Your task to perform on an android device: add a contact Image 0: 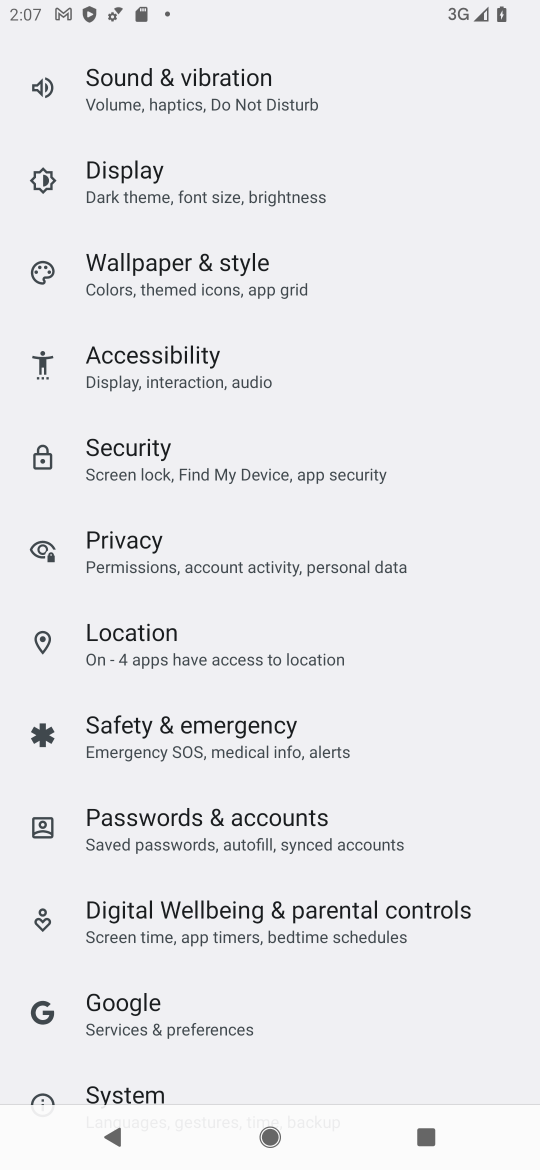
Step 0: press home button
Your task to perform on an android device: add a contact Image 1: 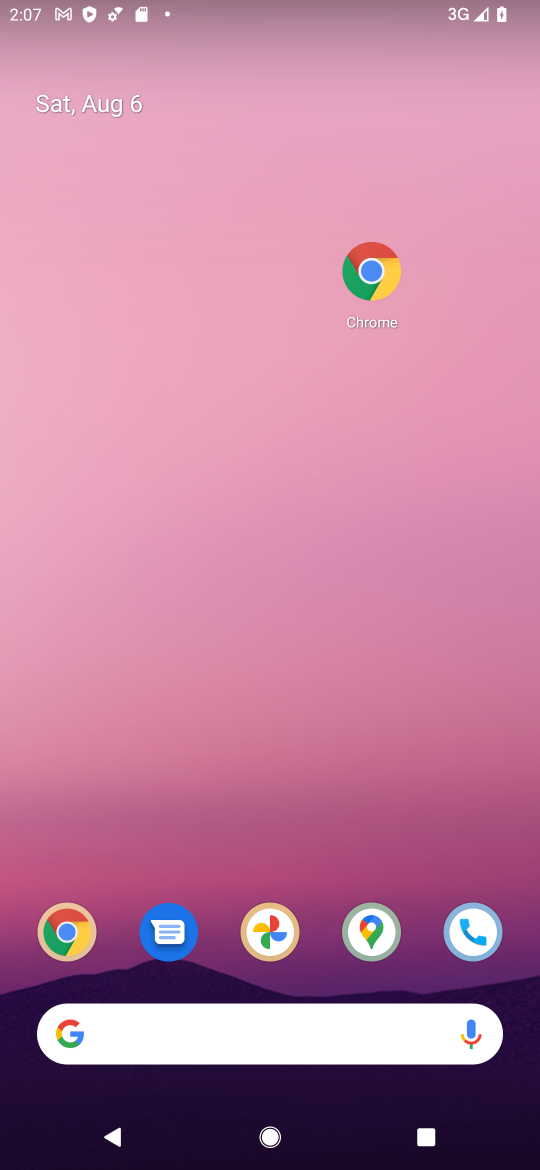
Step 1: click (476, 914)
Your task to perform on an android device: add a contact Image 2: 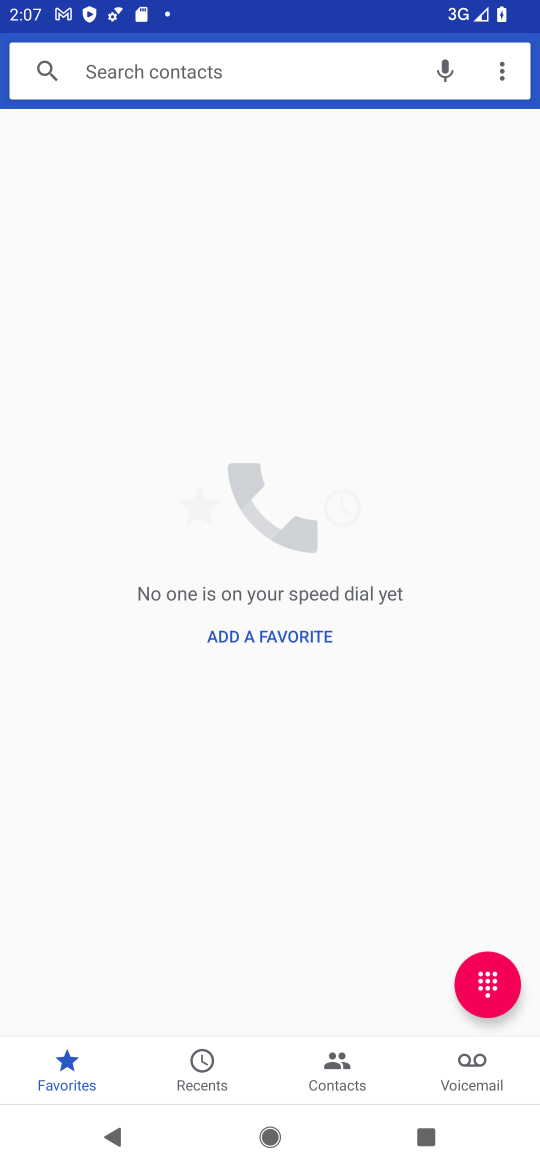
Step 2: click (472, 979)
Your task to perform on an android device: add a contact Image 3: 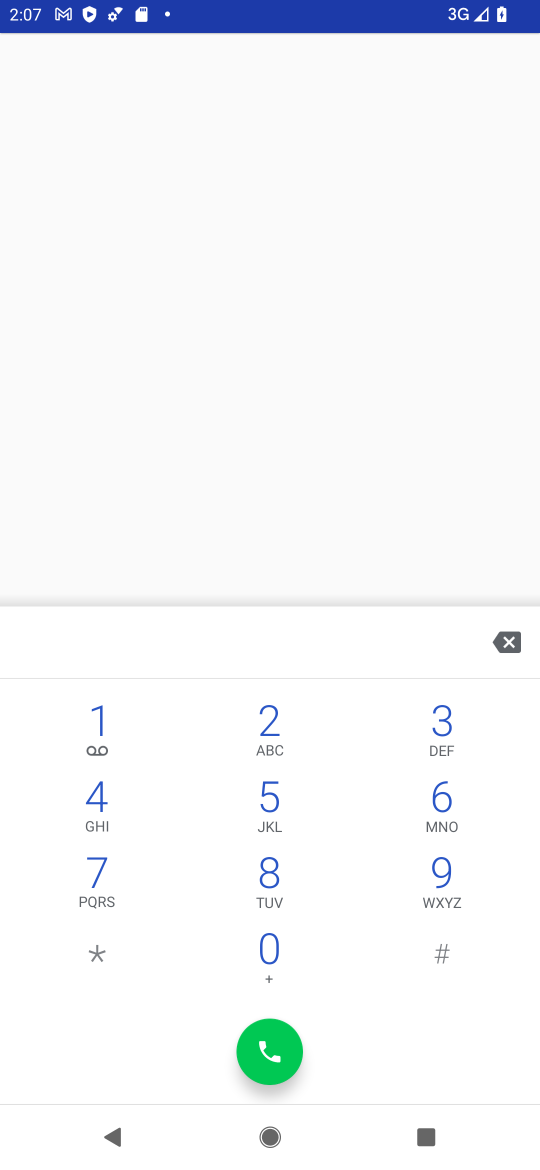
Step 3: click (273, 871)
Your task to perform on an android device: add a contact Image 4: 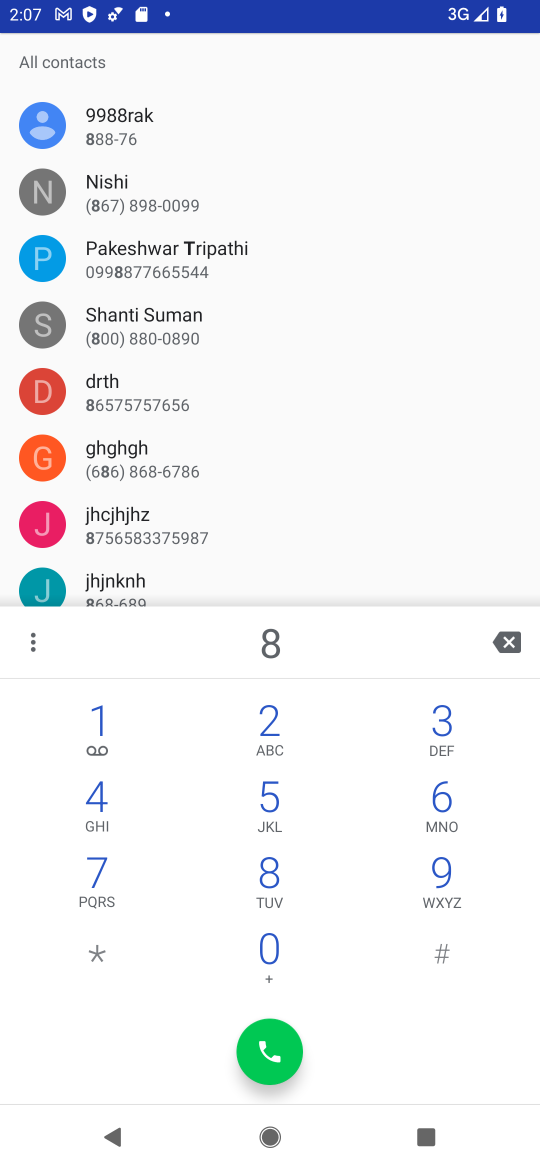
Step 4: click (174, 47)
Your task to perform on an android device: add a contact Image 5: 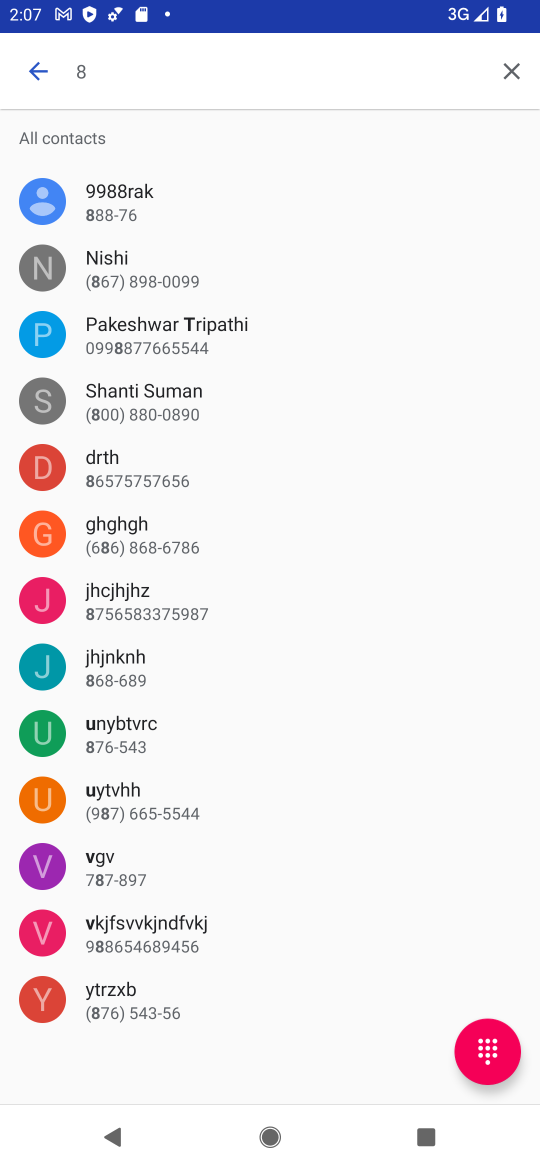
Step 5: click (505, 1032)
Your task to perform on an android device: add a contact Image 6: 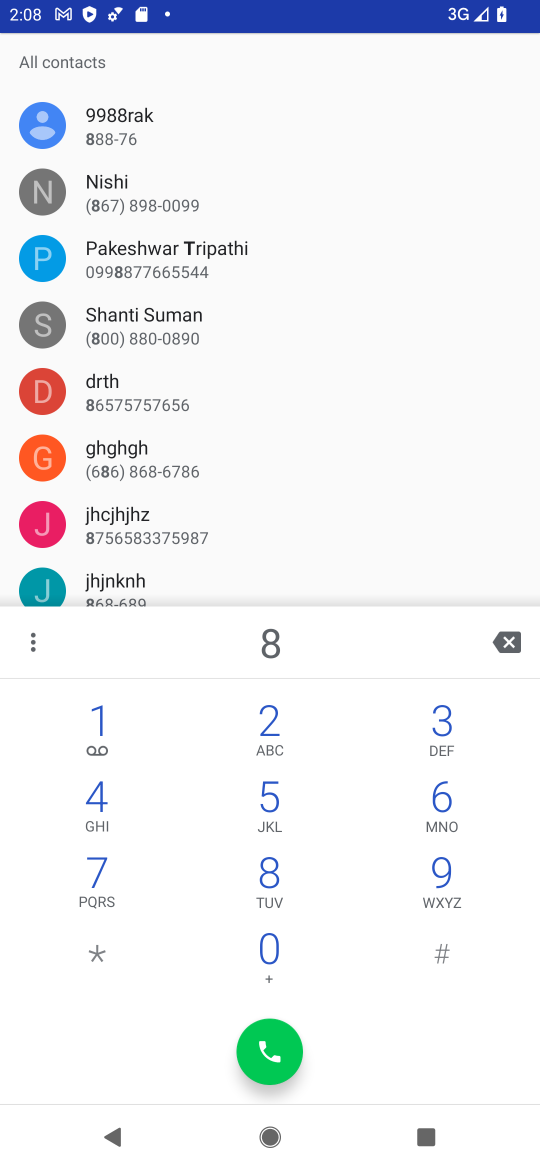
Step 6: task complete